Your task to perform on an android device: Open calendar and show me the fourth week of next month Image 0: 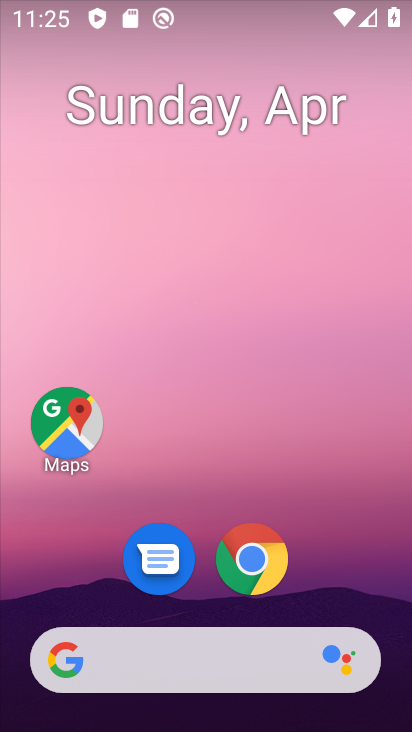
Step 0: drag from (354, 547) to (355, 96)
Your task to perform on an android device: Open calendar and show me the fourth week of next month Image 1: 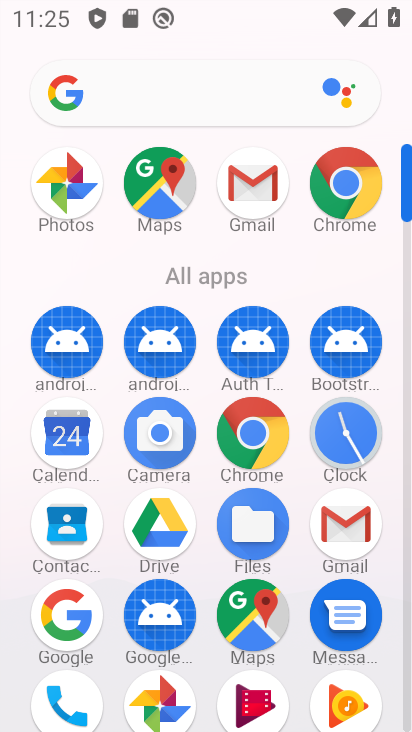
Step 1: click (406, 707)
Your task to perform on an android device: Open calendar and show me the fourth week of next month Image 2: 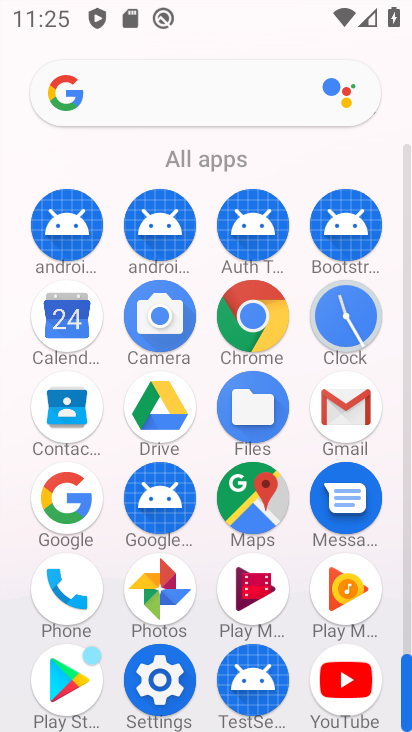
Step 2: click (406, 707)
Your task to perform on an android device: Open calendar and show me the fourth week of next month Image 3: 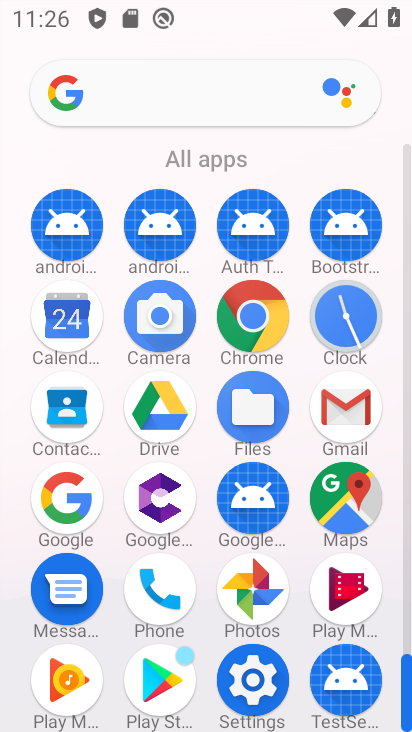
Step 3: click (73, 339)
Your task to perform on an android device: Open calendar and show me the fourth week of next month Image 4: 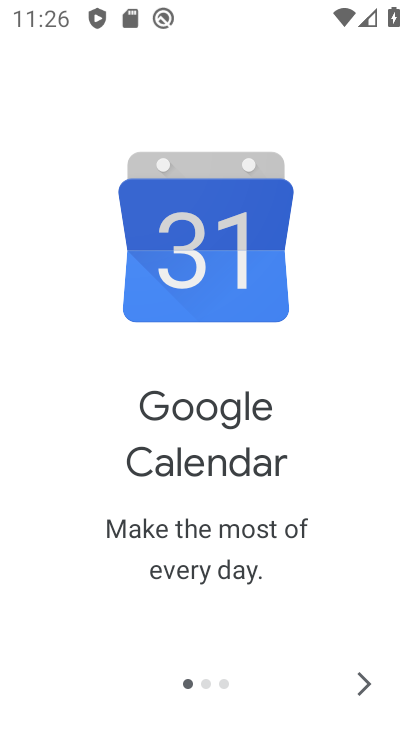
Step 4: click (371, 679)
Your task to perform on an android device: Open calendar and show me the fourth week of next month Image 5: 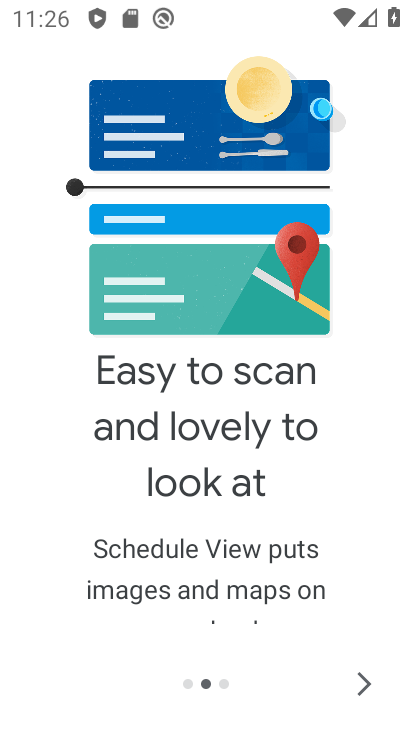
Step 5: click (371, 679)
Your task to perform on an android device: Open calendar and show me the fourth week of next month Image 6: 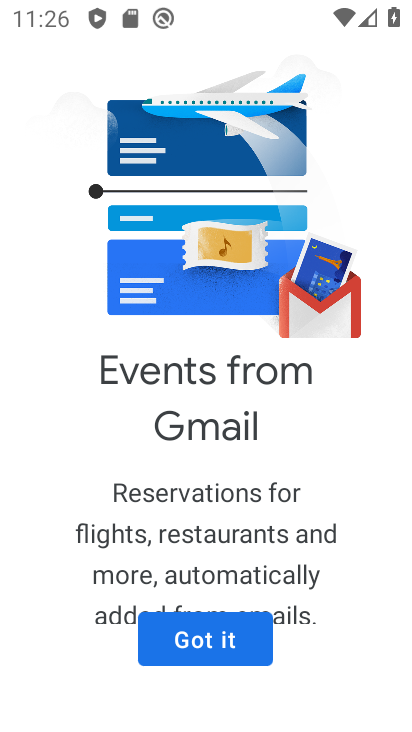
Step 6: click (252, 643)
Your task to perform on an android device: Open calendar and show me the fourth week of next month Image 7: 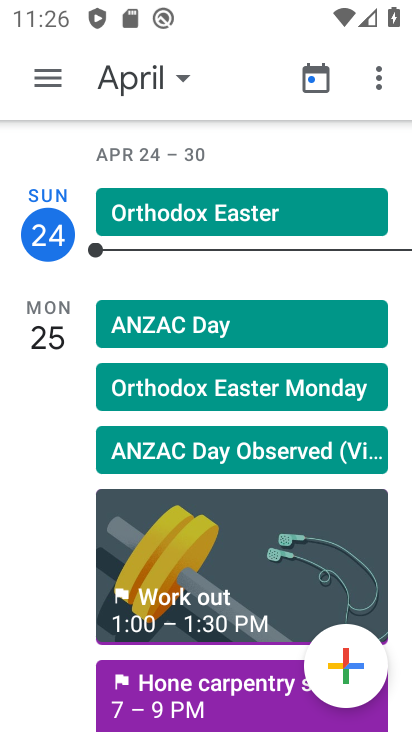
Step 7: click (150, 82)
Your task to perform on an android device: Open calendar and show me the fourth week of next month Image 8: 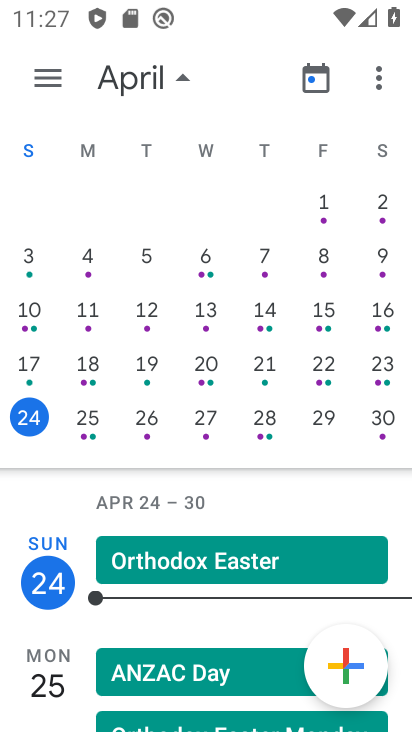
Step 8: drag from (348, 298) to (26, 279)
Your task to perform on an android device: Open calendar and show me the fourth week of next month Image 9: 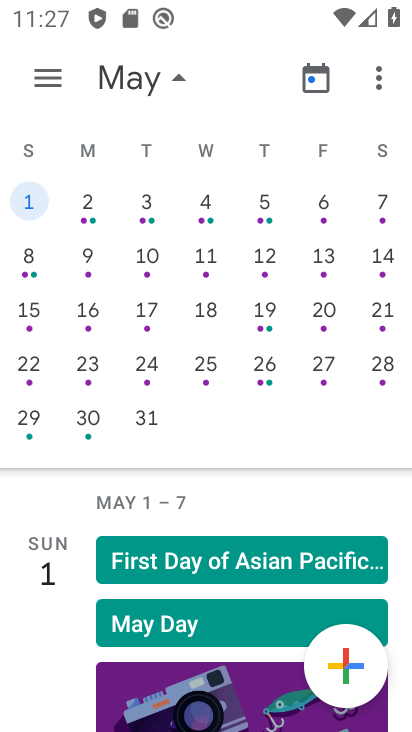
Step 9: click (152, 382)
Your task to perform on an android device: Open calendar and show me the fourth week of next month Image 10: 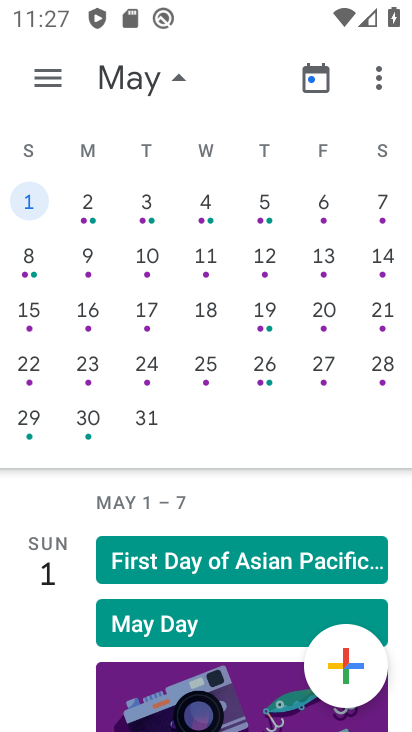
Step 10: click (190, 374)
Your task to perform on an android device: Open calendar and show me the fourth week of next month Image 11: 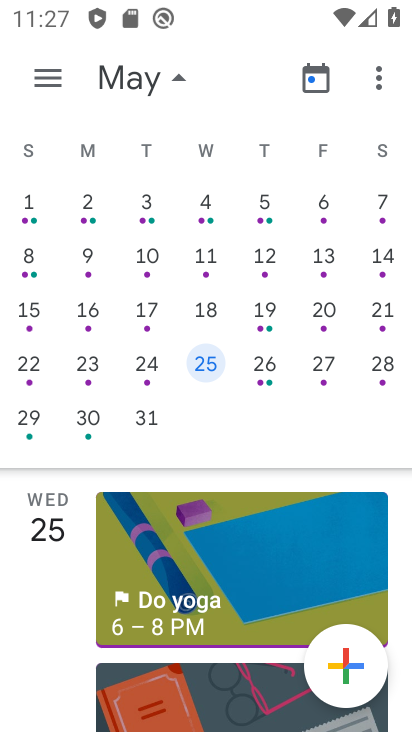
Step 11: task complete